Your task to perform on an android device: Toggle the flashlight Image 0: 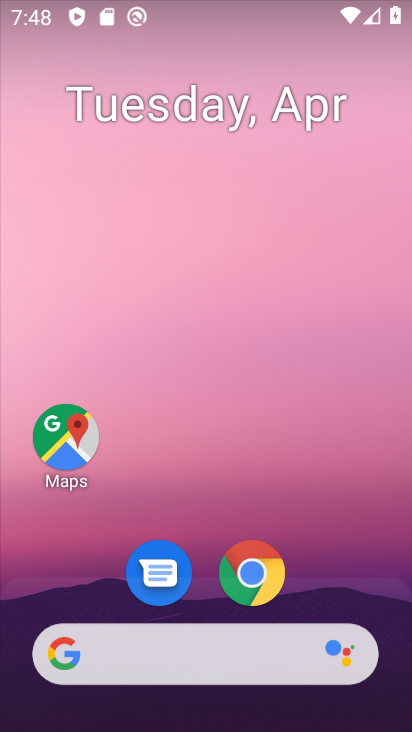
Step 0: drag from (188, 103) to (173, 642)
Your task to perform on an android device: Toggle the flashlight Image 1: 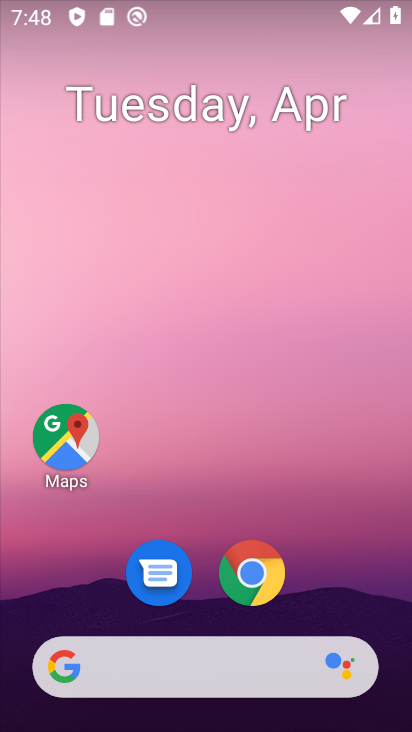
Step 1: drag from (272, 8) to (175, 648)
Your task to perform on an android device: Toggle the flashlight Image 2: 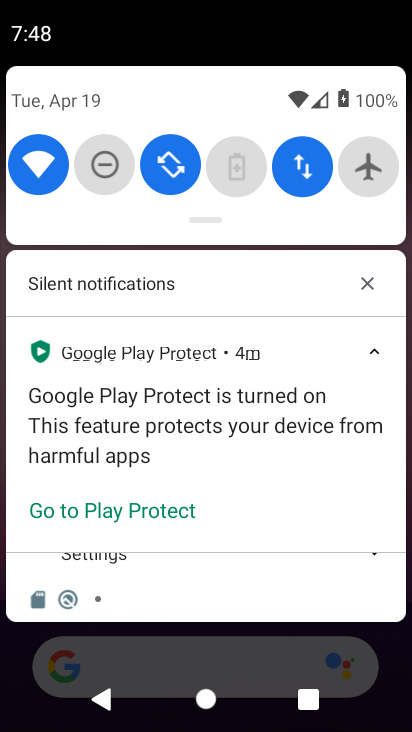
Step 2: drag from (183, 152) to (242, 721)
Your task to perform on an android device: Toggle the flashlight Image 3: 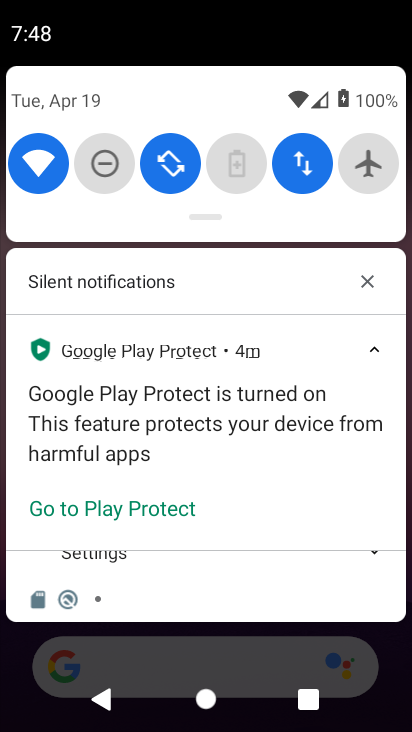
Step 3: drag from (212, 105) to (148, 715)
Your task to perform on an android device: Toggle the flashlight Image 4: 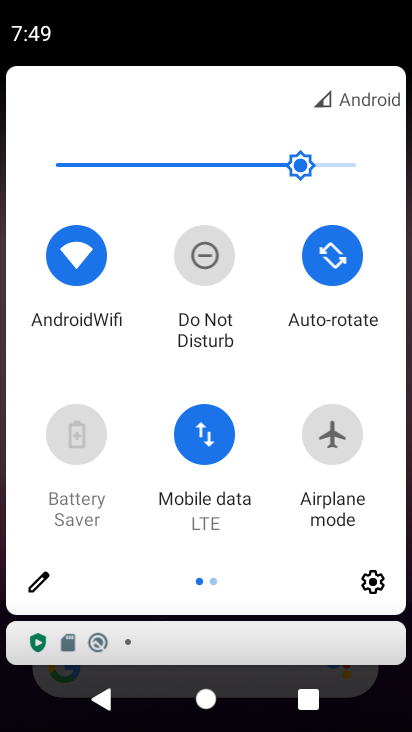
Step 4: click (371, 600)
Your task to perform on an android device: Toggle the flashlight Image 5: 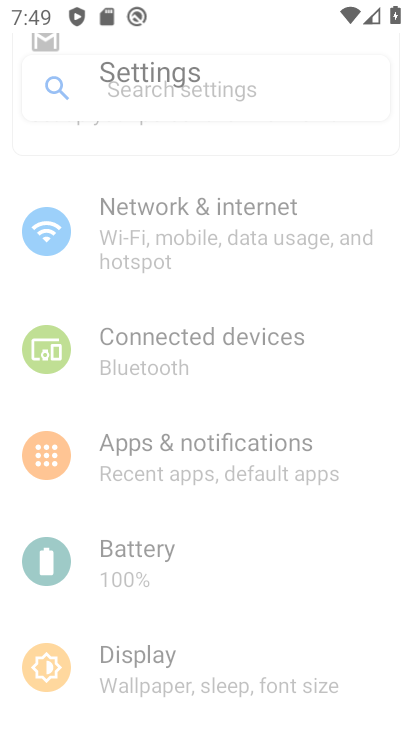
Step 5: click (371, 600)
Your task to perform on an android device: Toggle the flashlight Image 6: 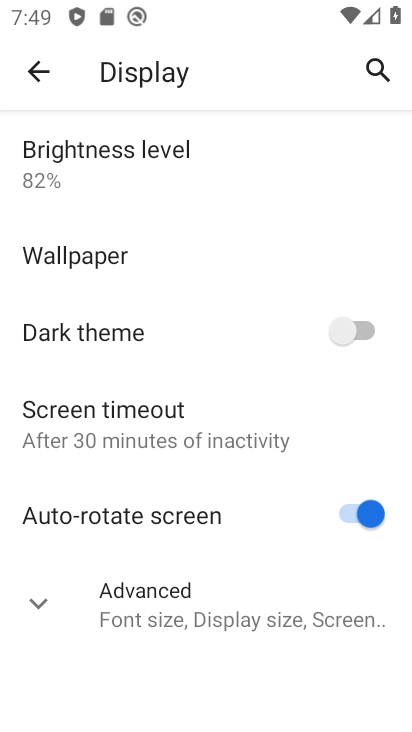
Step 6: task complete